Your task to perform on an android device: Go to network settings Image 0: 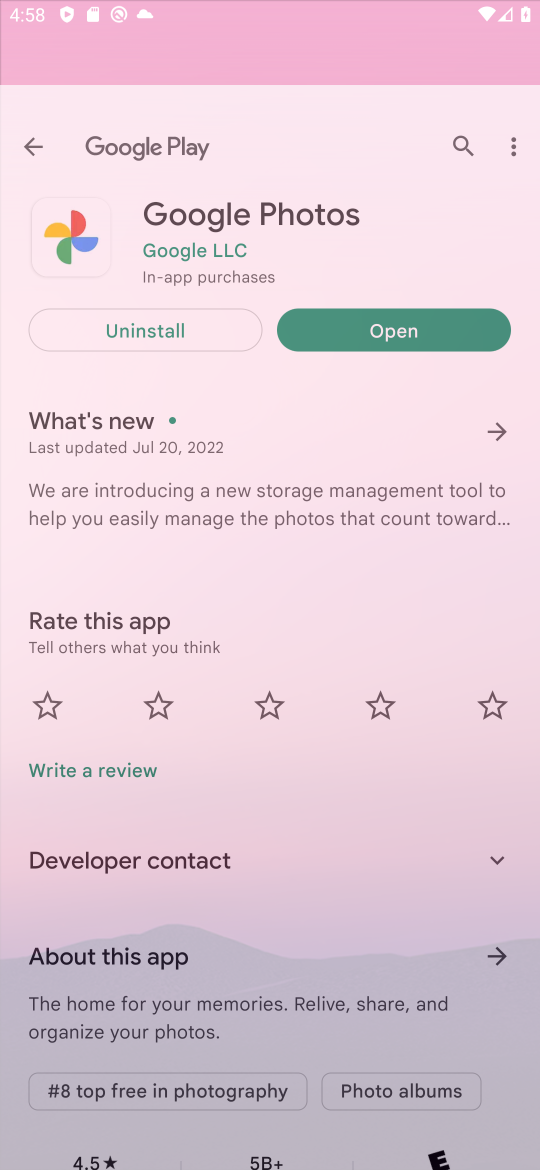
Step 0: press home button
Your task to perform on an android device: Go to network settings Image 1: 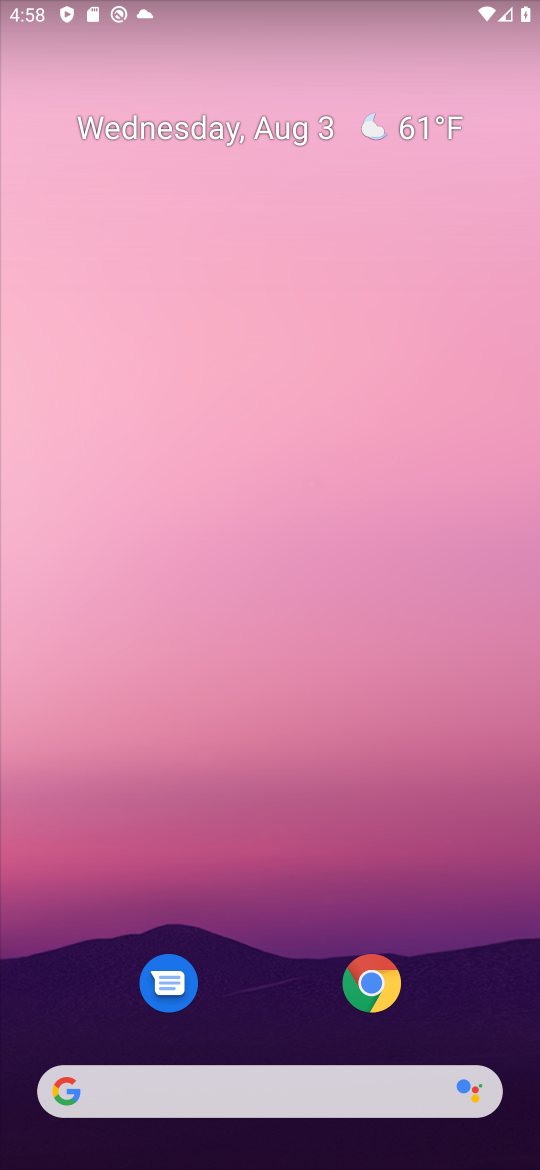
Step 1: drag from (275, 449) to (289, 154)
Your task to perform on an android device: Go to network settings Image 2: 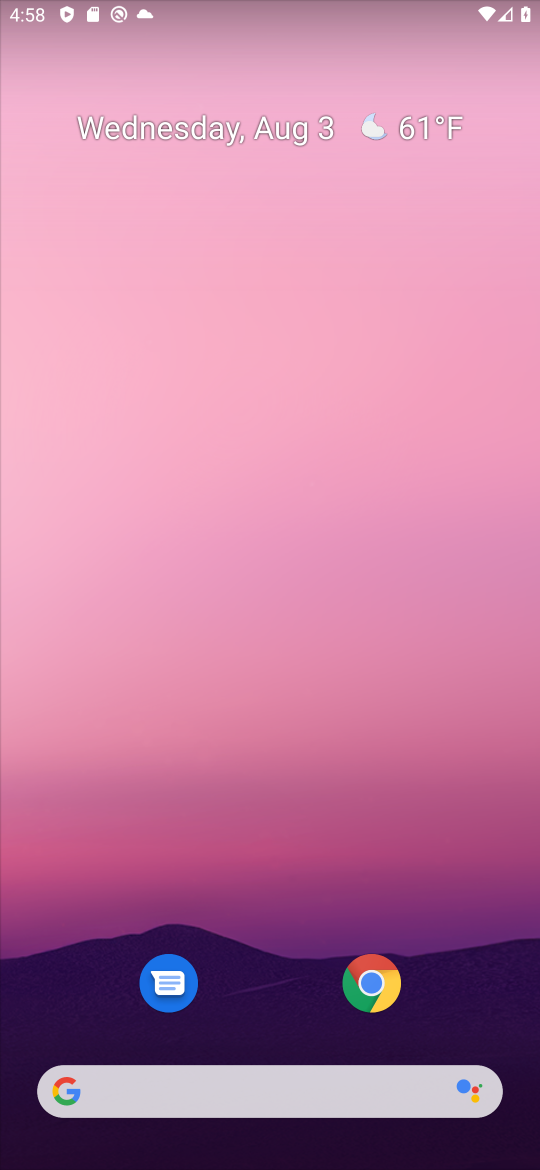
Step 2: drag from (329, 754) to (457, 135)
Your task to perform on an android device: Go to network settings Image 3: 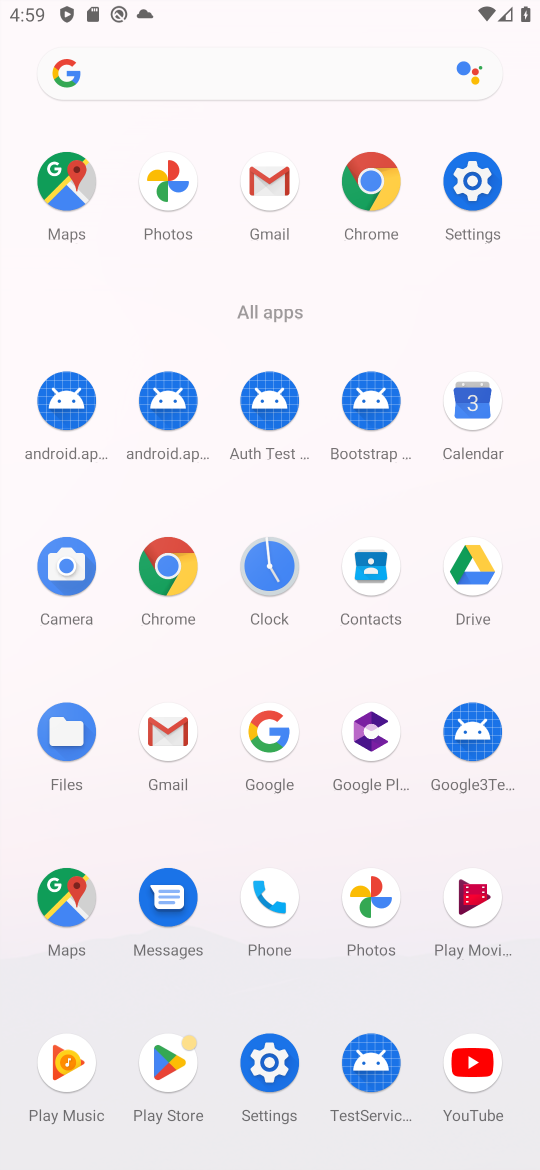
Step 3: click (465, 178)
Your task to perform on an android device: Go to network settings Image 4: 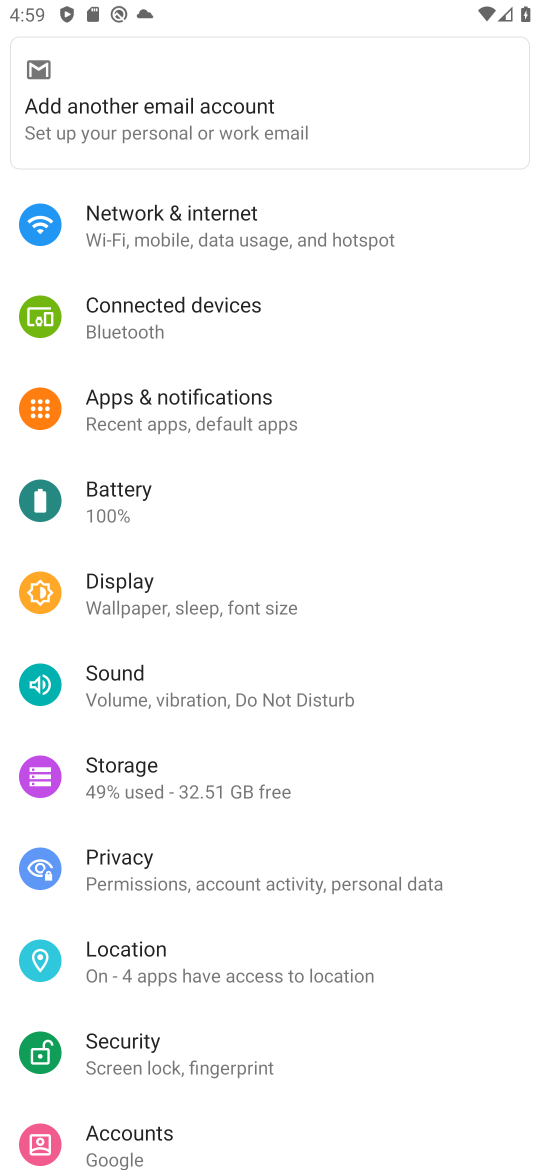
Step 4: click (175, 230)
Your task to perform on an android device: Go to network settings Image 5: 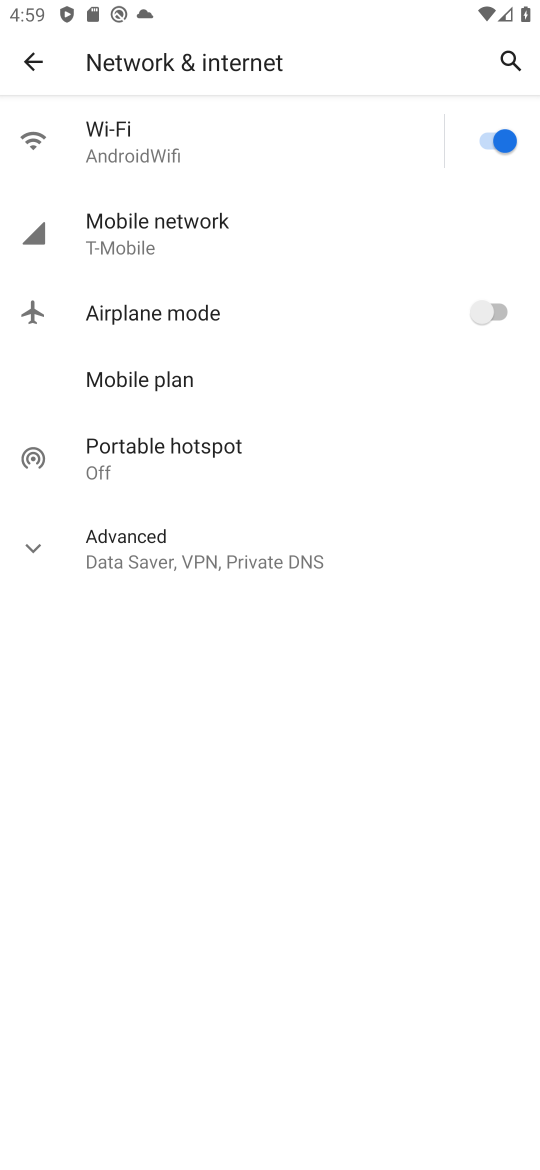
Step 5: task complete